Your task to perform on an android device: visit the assistant section in the google photos Image 0: 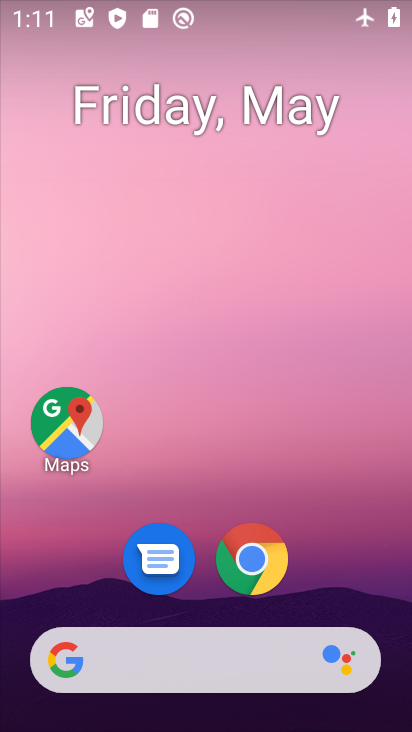
Step 0: drag from (306, 514) to (303, 109)
Your task to perform on an android device: visit the assistant section in the google photos Image 1: 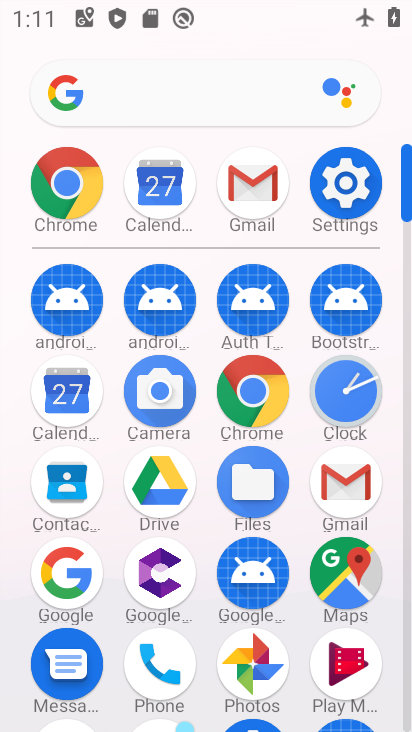
Step 1: click (260, 655)
Your task to perform on an android device: visit the assistant section in the google photos Image 2: 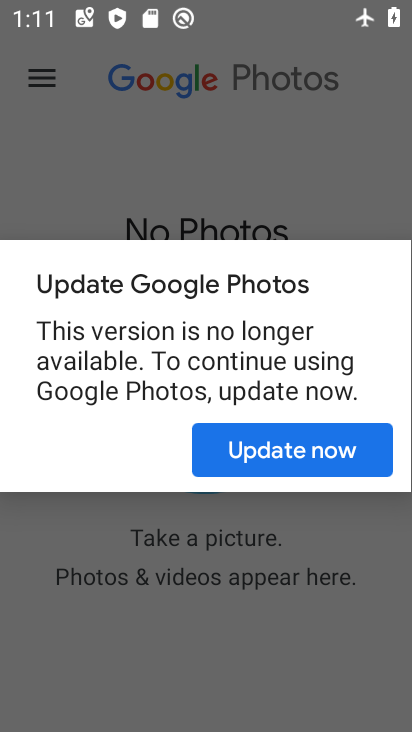
Step 2: click (271, 461)
Your task to perform on an android device: visit the assistant section in the google photos Image 3: 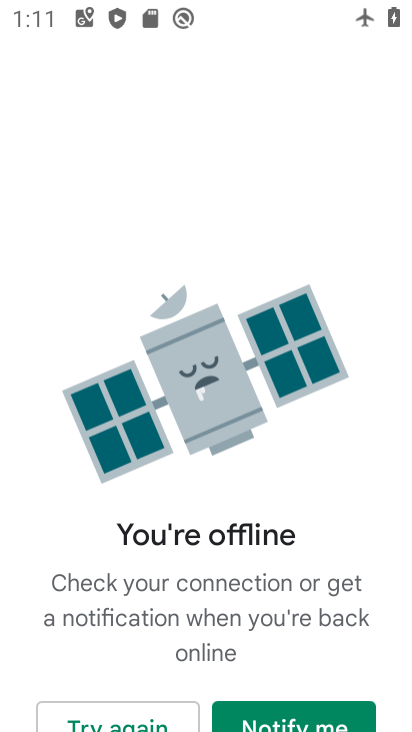
Step 3: task complete